Your task to perform on an android device: delete location history Image 0: 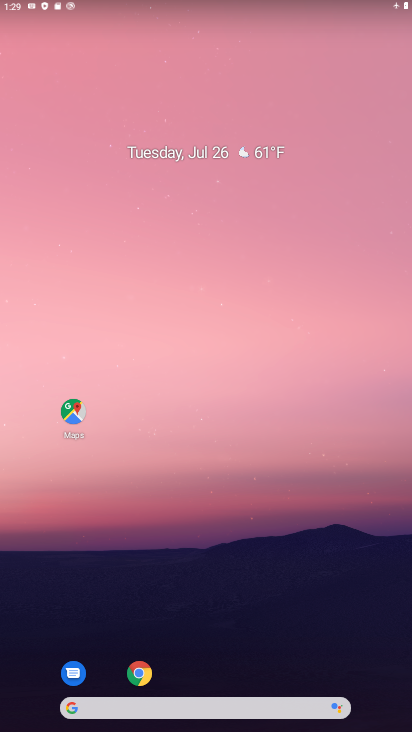
Step 0: drag from (172, 608) to (243, 131)
Your task to perform on an android device: delete location history Image 1: 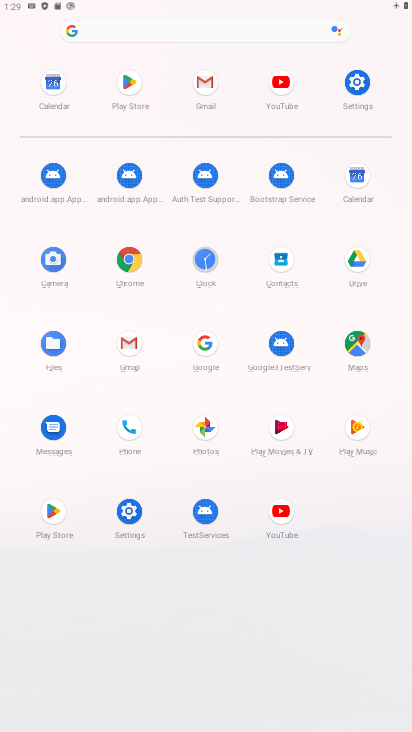
Step 1: click (133, 519)
Your task to perform on an android device: delete location history Image 2: 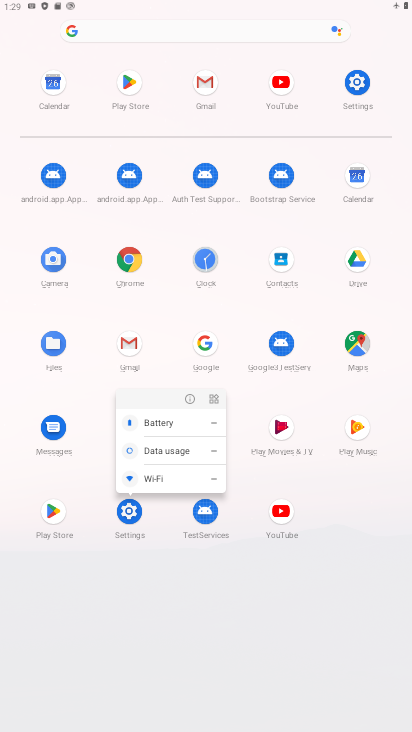
Step 2: click (186, 401)
Your task to perform on an android device: delete location history Image 3: 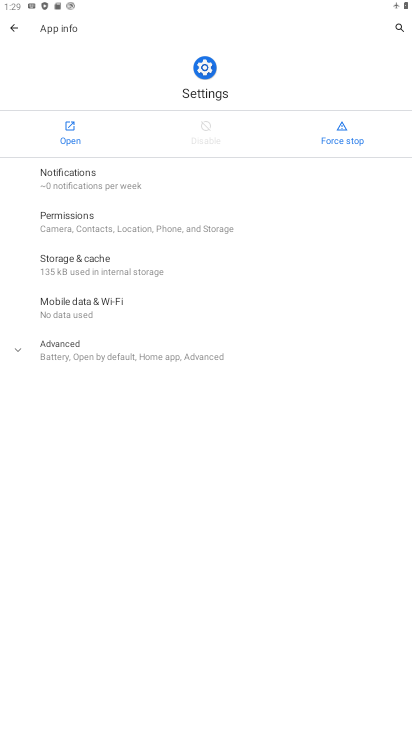
Step 3: click (65, 129)
Your task to perform on an android device: delete location history Image 4: 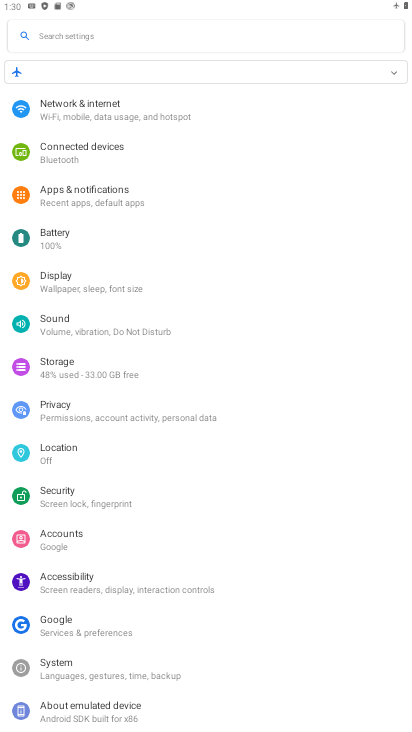
Step 4: click (59, 454)
Your task to perform on an android device: delete location history Image 5: 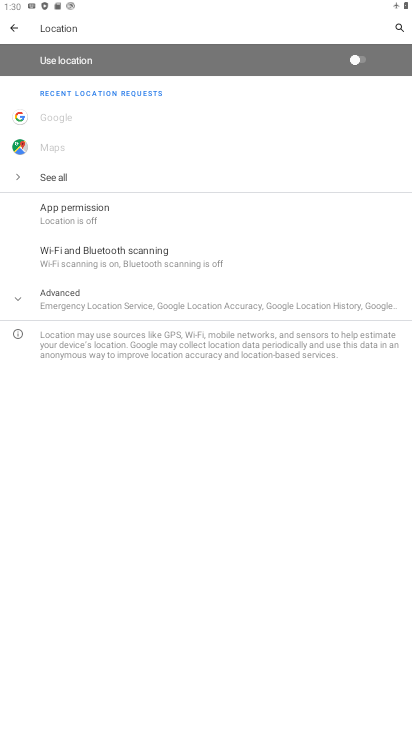
Step 5: click (64, 309)
Your task to perform on an android device: delete location history Image 6: 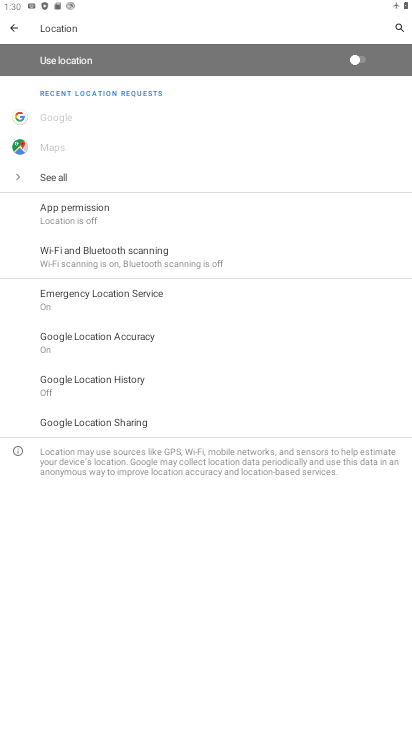
Step 6: click (122, 379)
Your task to perform on an android device: delete location history Image 7: 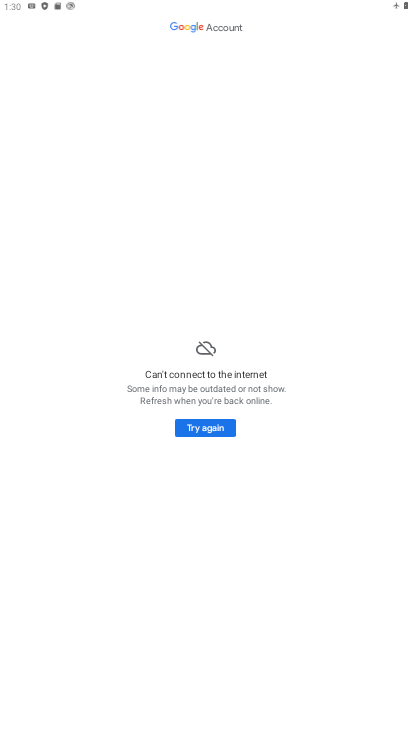
Step 7: click (205, 428)
Your task to perform on an android device: delete location history Image 8: 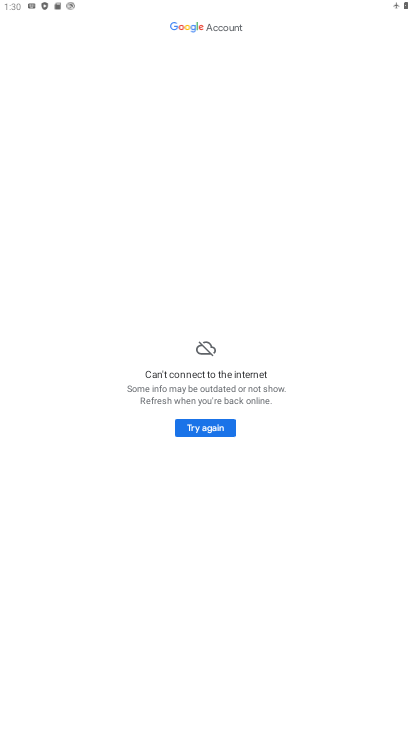
Step 8: drag from (257, 550) to (310, 328)
Your task to perform on an android device: delete location history Image 9: 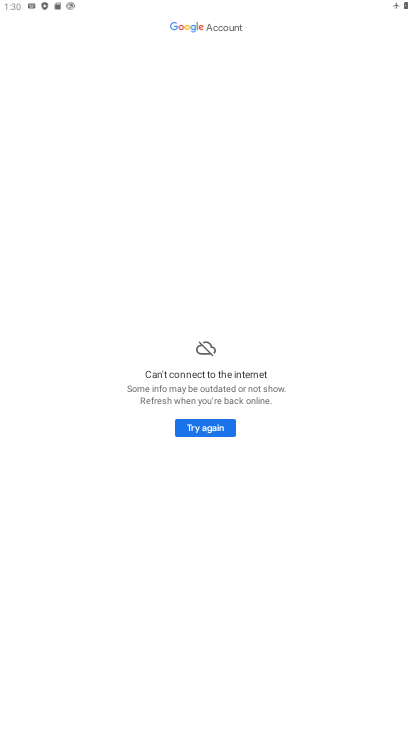
Step 9: click (184, 426)
Your task to perform on an android device: delete location history Image 10: 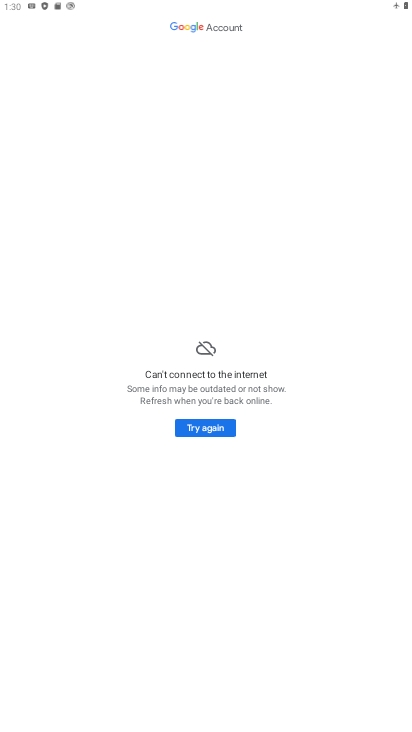
Step 10: task complete